Your task to perform on an android device: Open my contact list Image 0: 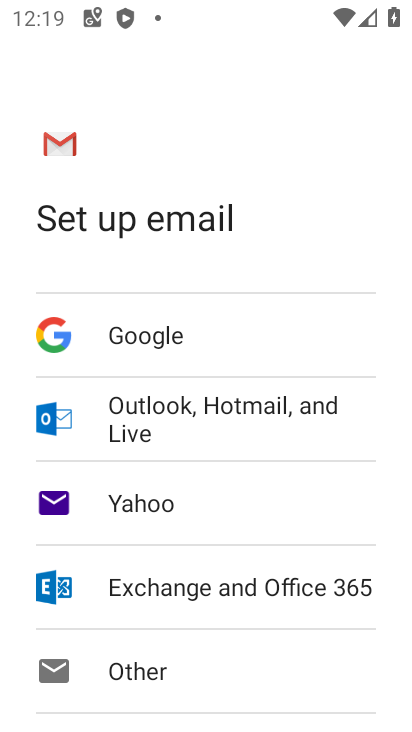
Step 0: press home button
Your task to perform on an android device: Open my contact list Image 1: 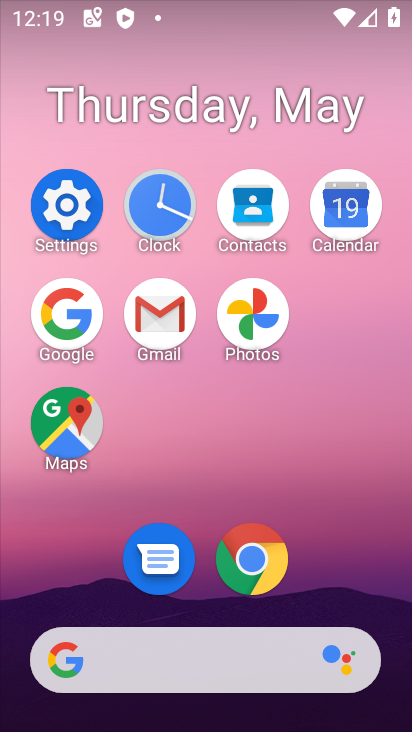
Step 1: click (270, 205)
Your task to perform on an android device: Open my contact list Image 2: 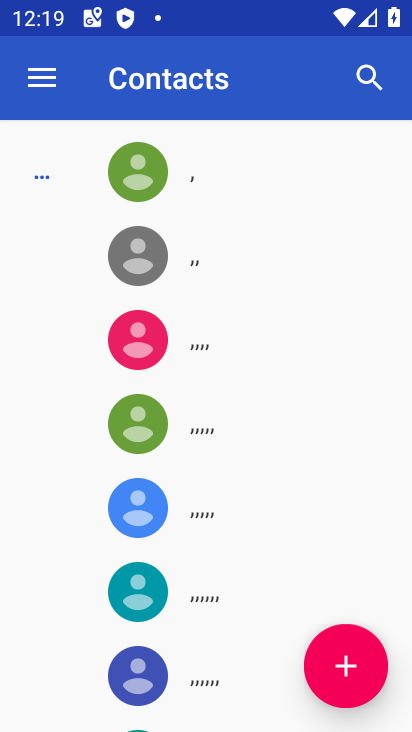
Step 2: task complete